Your task to perform on an android device: Is it going to rain today? Image 0: 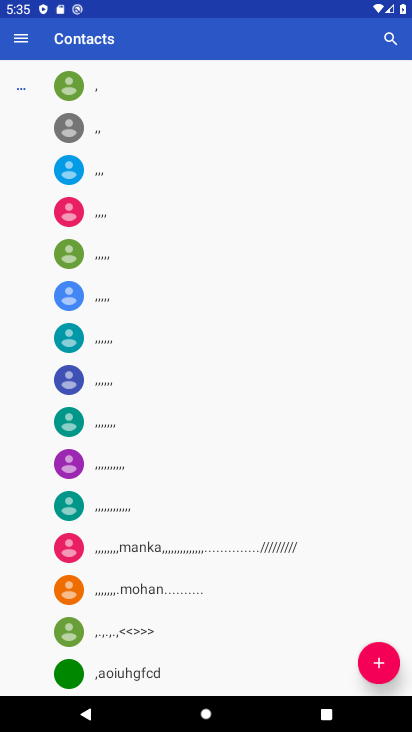
Step 0: press home button
Your task to perform on an android device: Is it going to rain today? Image 1: 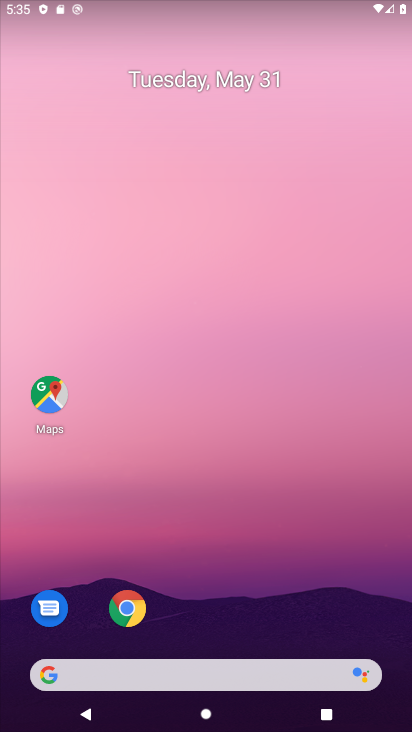
Step 1: drag from (250, 635) to (235, 200)
Your task to perform on an android device: Is it going to rain today? Image 2: 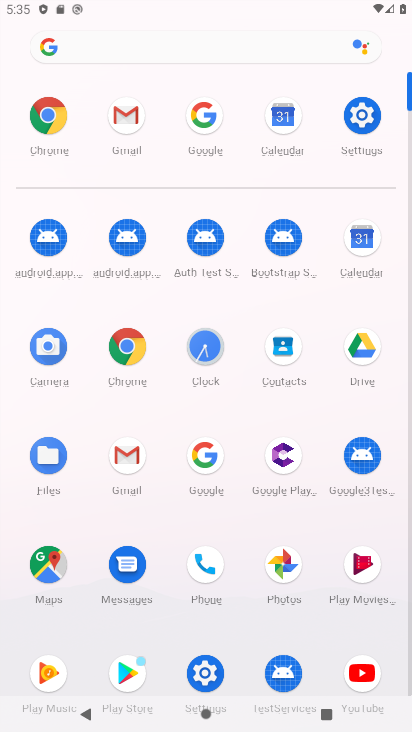
Step 2: click (199, 443)
Your task to perform on an android device: Is it going to rain today? Image 3: 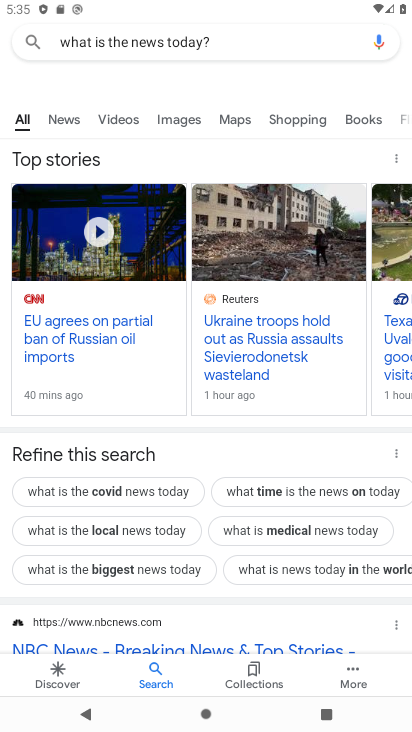
Step 3: click (232, 32)
Your task to perform on an android device: Is it going to rain today? Image 4: 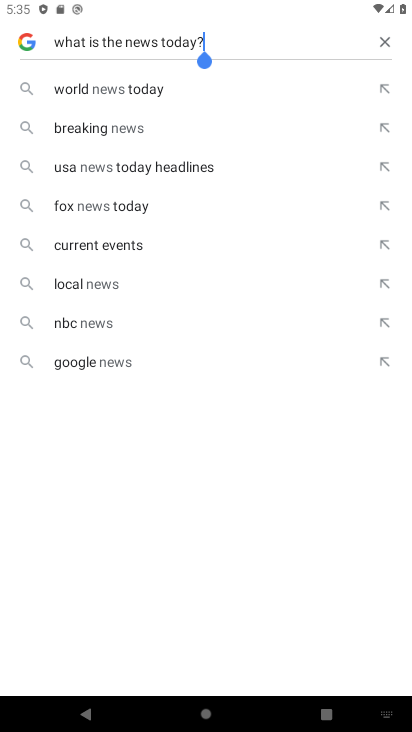
Step 4: click (384, 36)
Your task to perform on an android device: Is it going to rain today? Image 5: 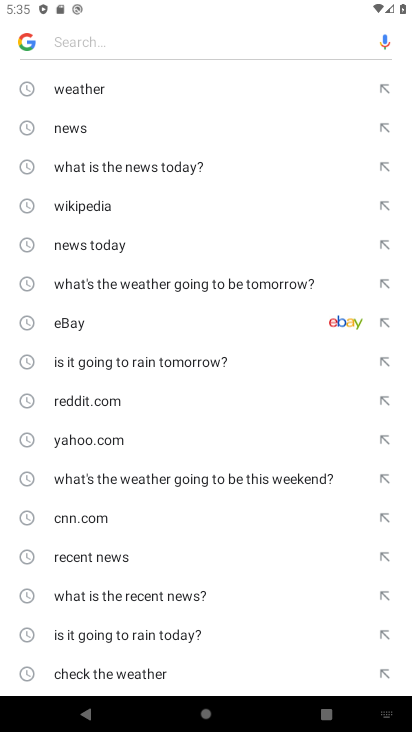
Step 5: click (134, 636)
Your task to perform on an android device: Is it going to rain today? Image 6: 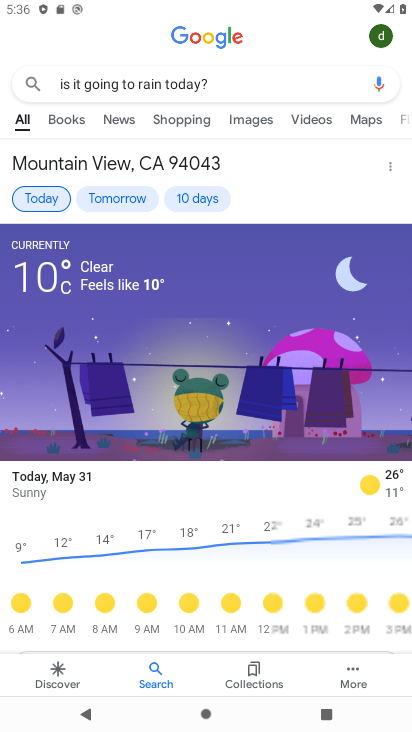
Step 6: task complete